Your task to perform on an android device: Check the news Image 0: 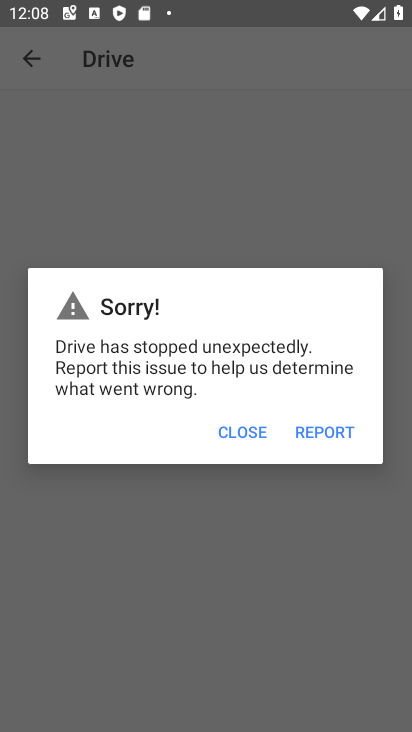
Step 0: press home button
Your task to perform on an android device: Check the news Image 1: 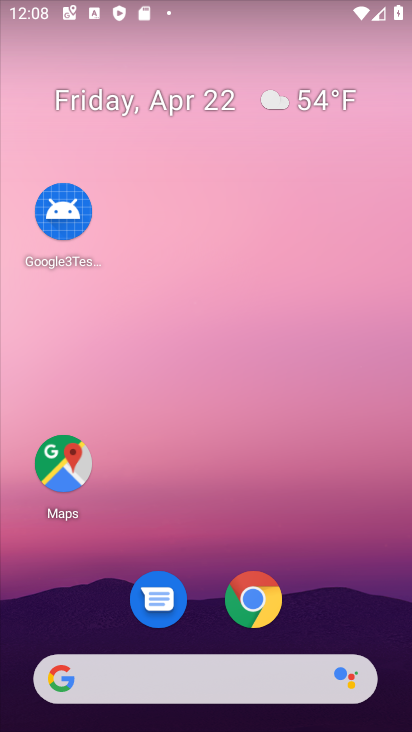
Step 1: click (194, 470)
Your task to perform on an android device: Check the news Image 2: 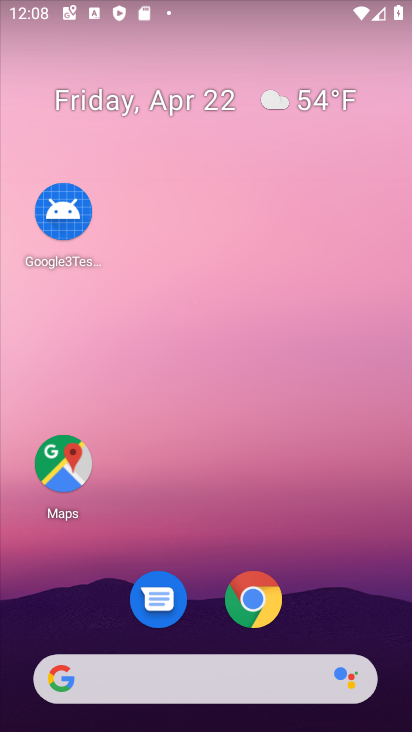
Step 2: drag from (194, 470) to (180, 22)
Your task to perform on an android device: Check the news Image 3: 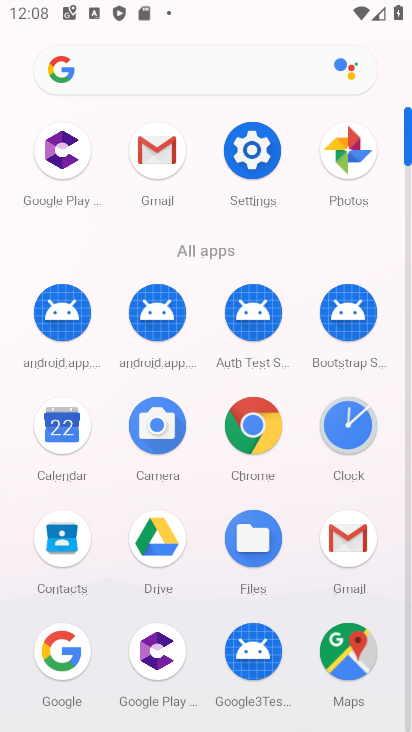
Step 3: click (68, 650)
Your task to perform on an android device: Check the news Image 4: 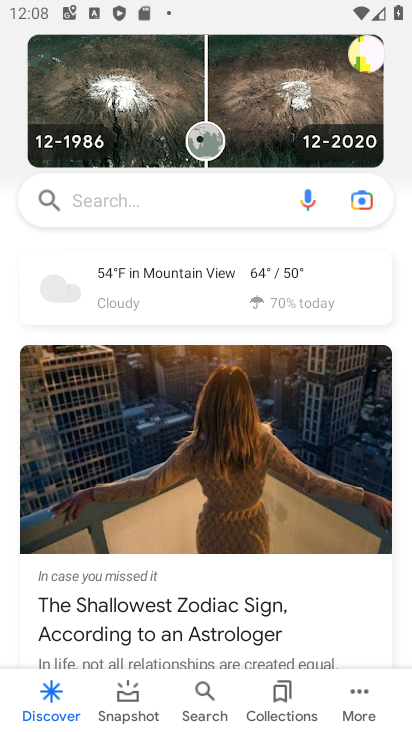
Step 4: task complete